Your task to perform on an android device: check battery use Image 0: 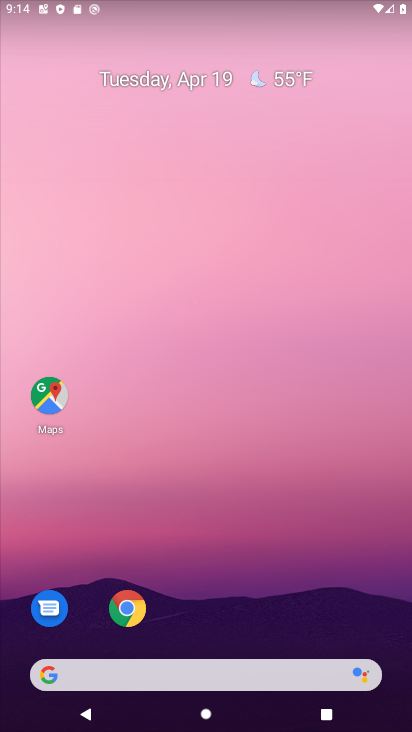
Step 0: drag from (261, 652) to (380, 47)
Your task to perform on an android device: check battery use Image 1: 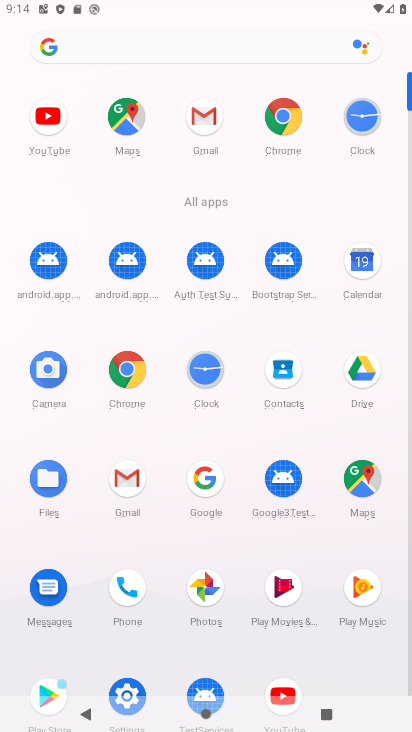
Step 1: click (123, 681)
Your task to perform on an android device: check battery use Image 2: 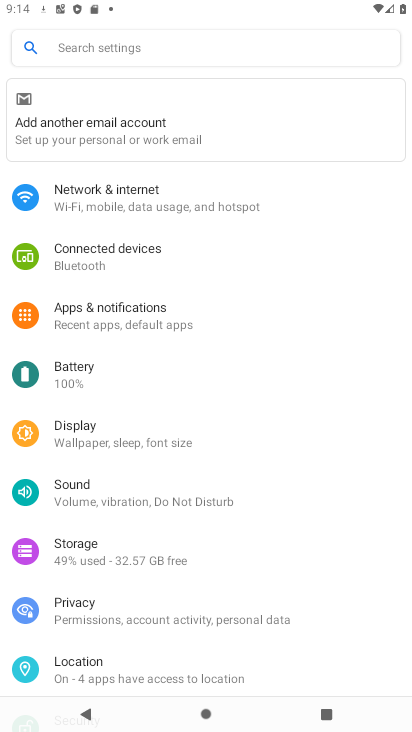
Step 2: click (98, 372)
Your task to perform on an android device: check battery use Image 3: 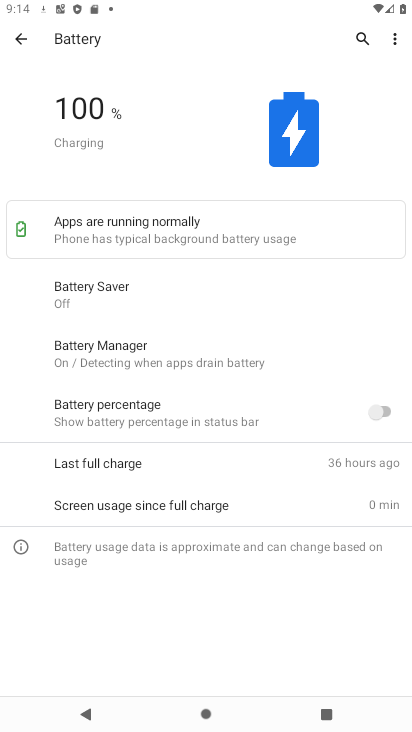
Step 3: click (400, 45)
Your task to perform on an android device: check battery use Image 4: 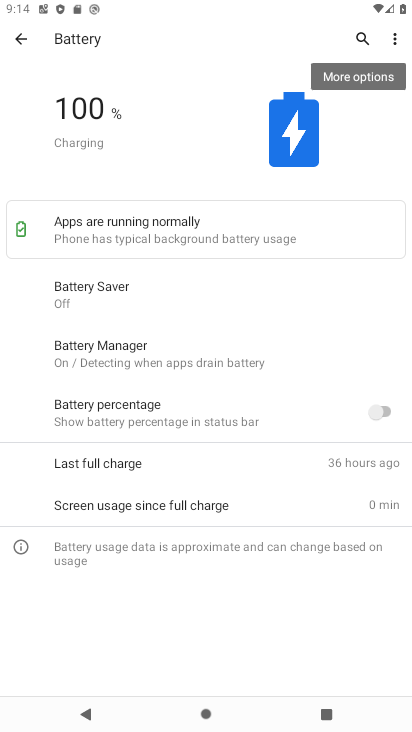
Step 4: click (374, 72)
Your task to perform on an android device: check battery use Image 5: 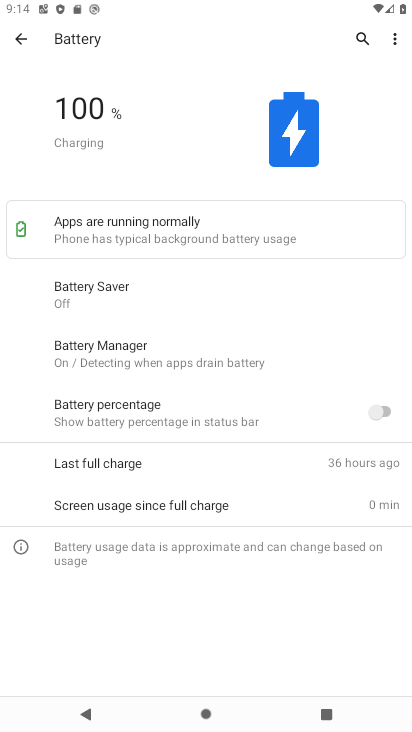
Step 5: click (394, 28)
Your task to perform on an android device: check battery use Image 6: 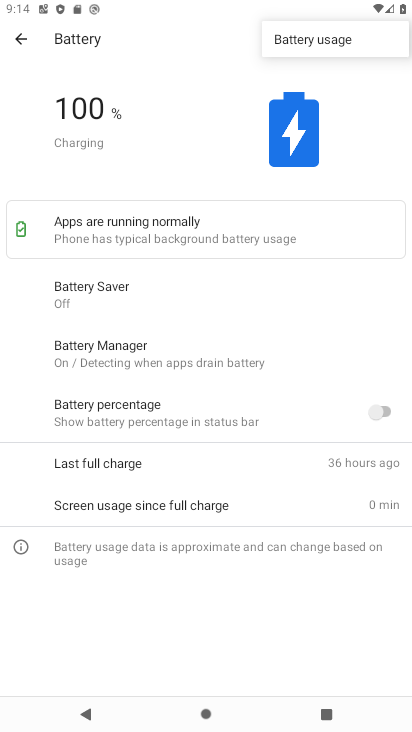
Step 6: click (386, 48)
Your task to perform on an android device: check battery use Image 7: 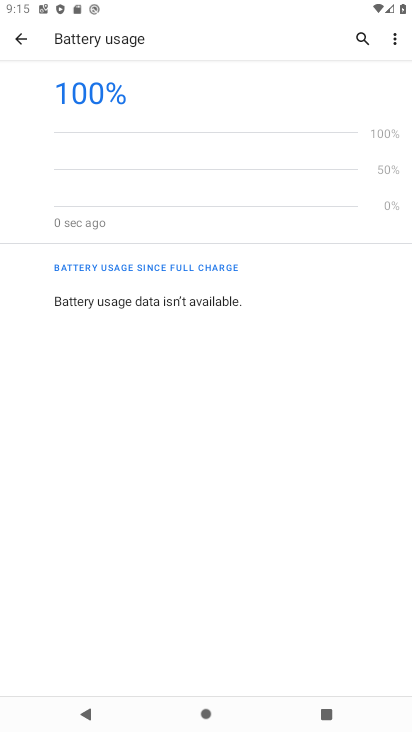
Step 7: task complete